Your task to perform on an android device: Go to Google maps Image 0: 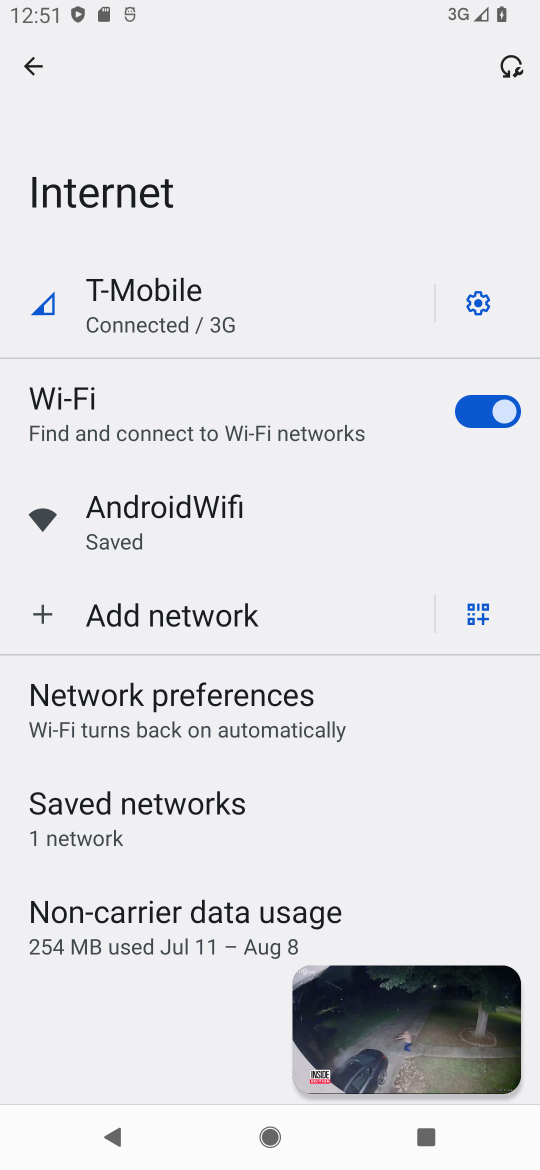
Step 0: press home button
Your task to perform on an android device: Go to Google maps Image 1: 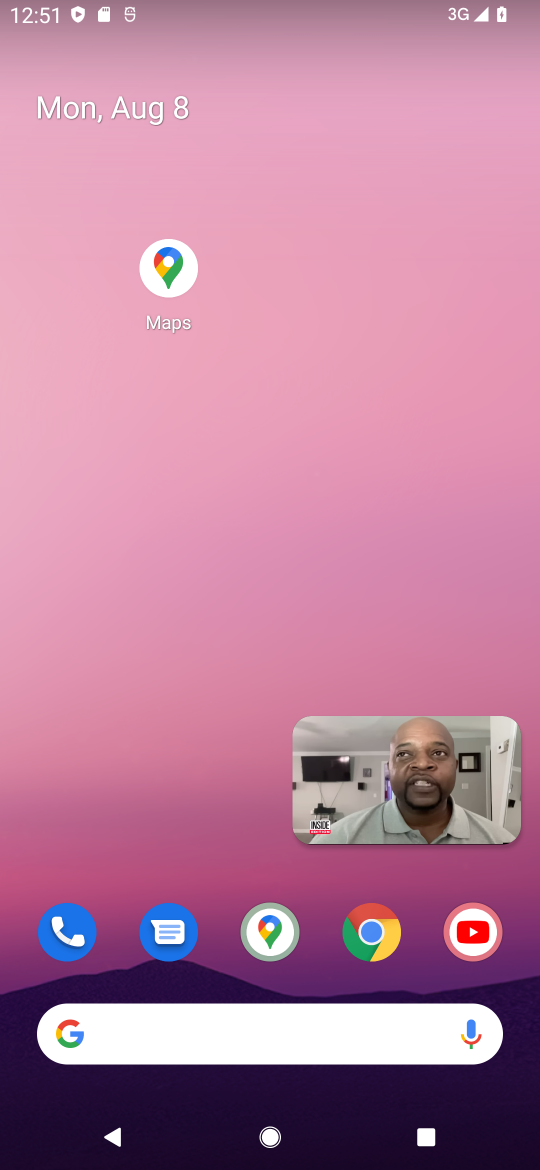
Step 1: click (187, 268)
Your task to perform on an android device: Go to Google maps Image 2: 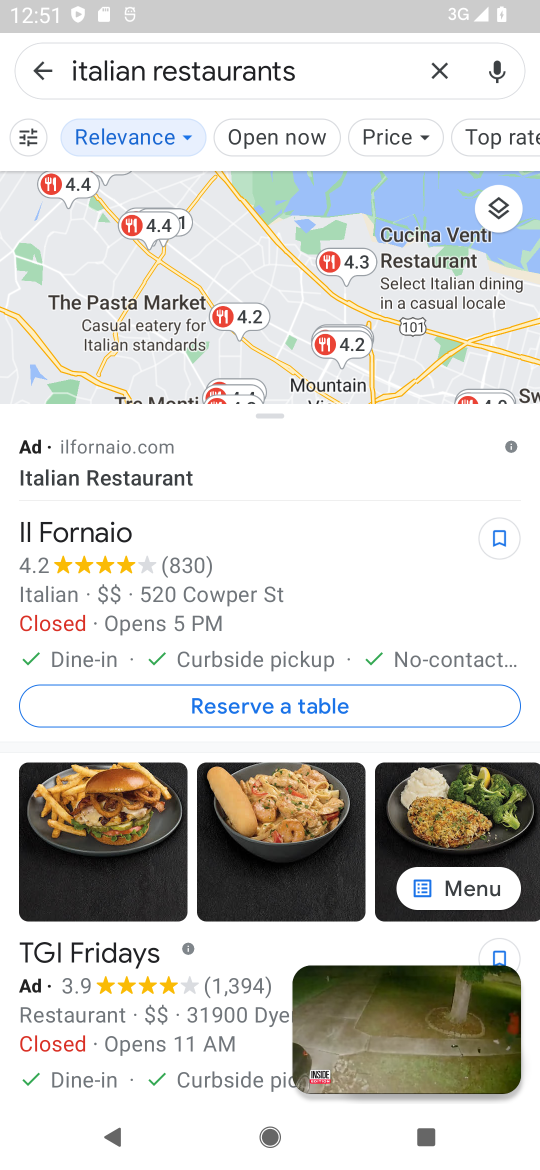
Step 2: click (187, 268)
Your task to perform on an android device: Go to Google maps Image 3: 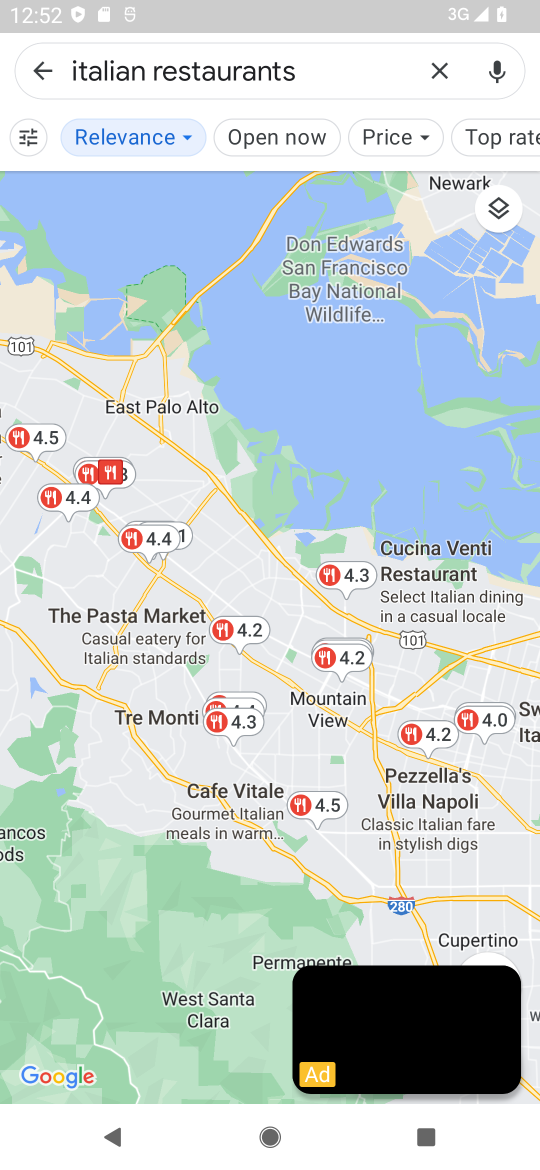
Step 3: task complete